Your task to perform on an android device: search for starred emails in the gmail app Image 0: 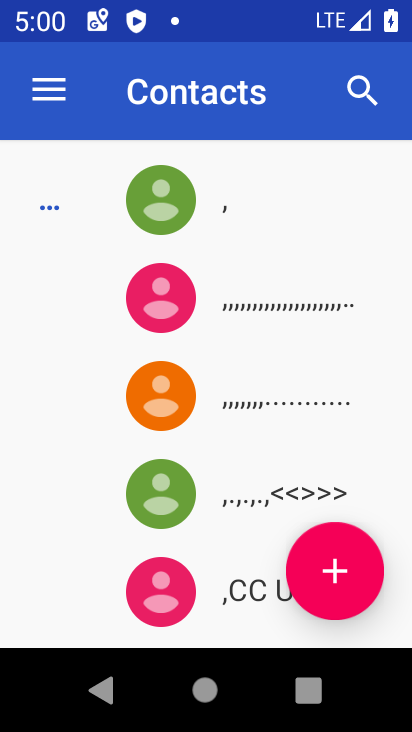
Step 0: press home button
Your task to perform on an android device: search for starred emails in the gmail app Image 1: 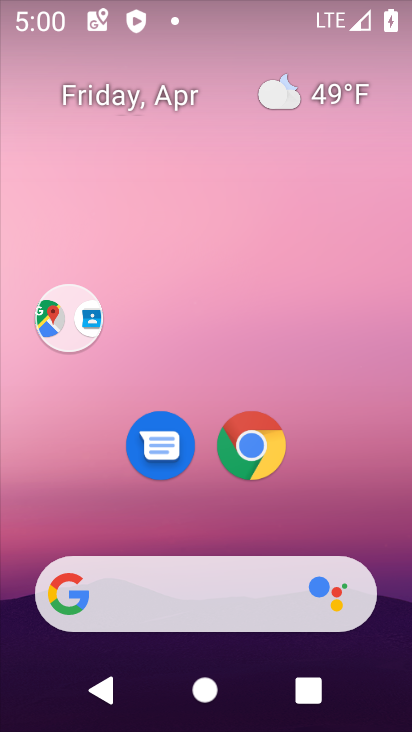
Step 1: drag from (319, 497) to (350, 76)
Your task to perform on an android device: search for starred emails in the gmail app Image 2: 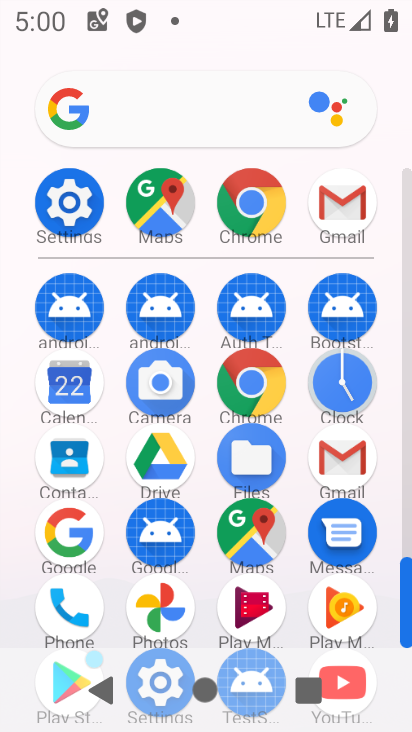
Step 2: click (338, 443)
Your task to perform on an android device: search for starred emails in the gmail app Image 3: 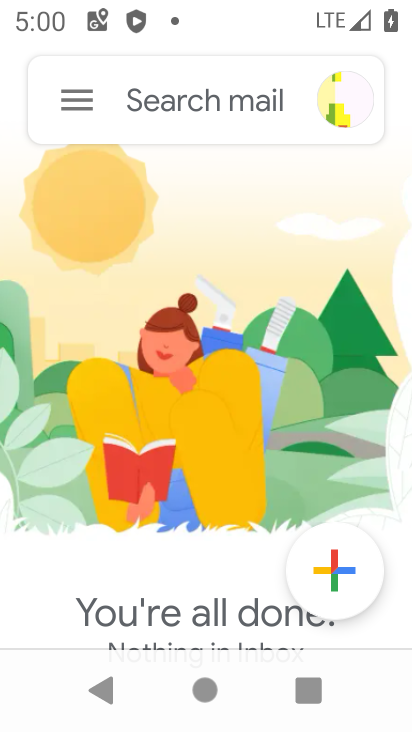
Step 3: click (70, 92)
Your task to perform on an android device: search for starred emails in the gmail app Image 4: 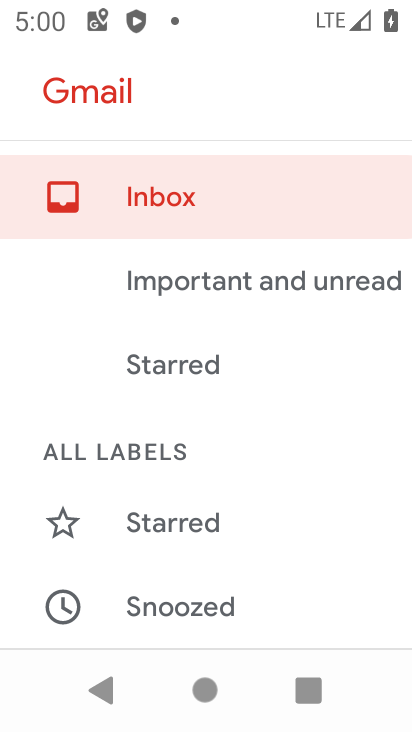
Step 4: click (175, 362)
Your task to perform on an android device: search for starred emails in the gmail app Image 5: 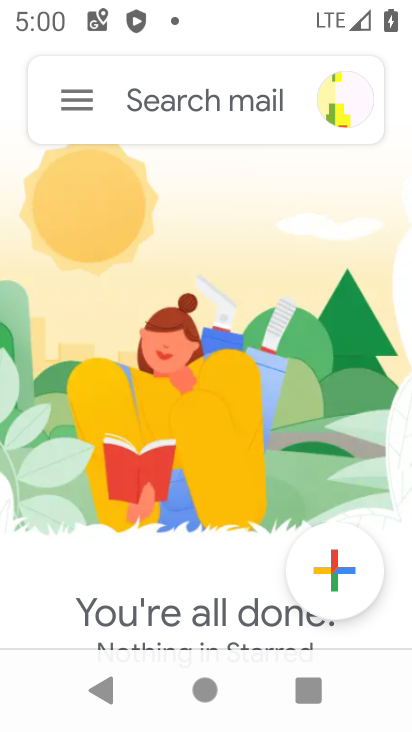
Step 5: task complete